Your task to perform on an android device: change alarm snooze length Image 0: 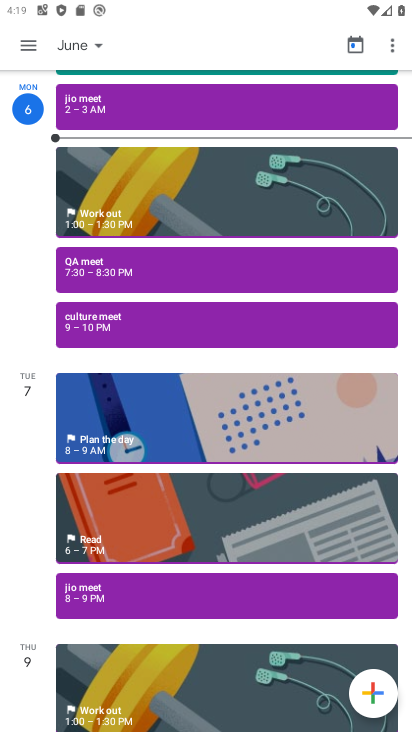
Step 0: press back button
Your task to perform on an android device: change alarm snooze length Image 1: 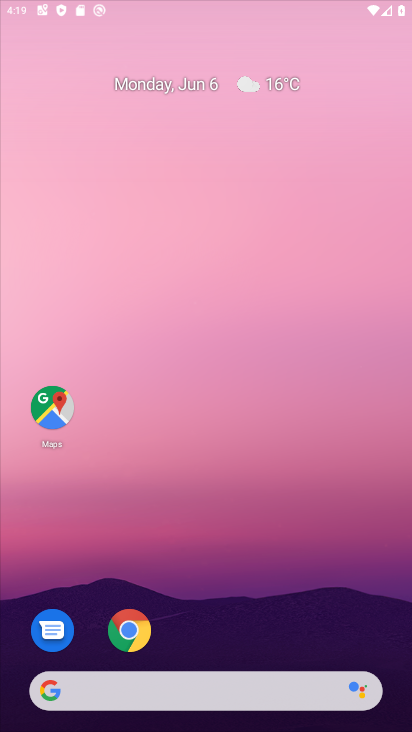
Step 1: drag from (288, 131) to (305, 50)
Your task to perform on an android device: change alarm snooze length Image 2: 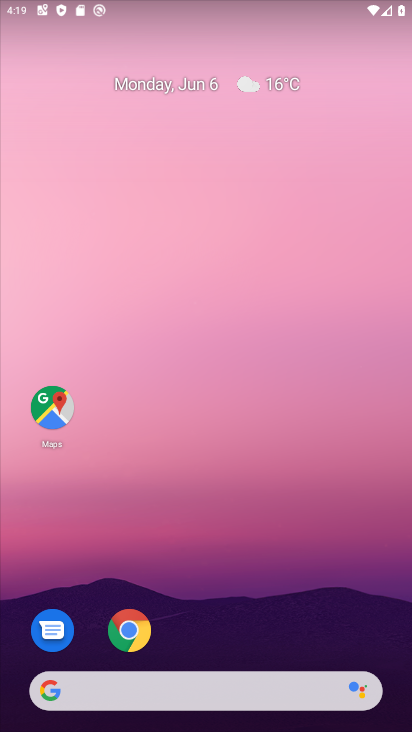
Step 2: drag from (262, 539) to (322, 10)
Your task to perform on an android device: change alarm snooze length Image 3: 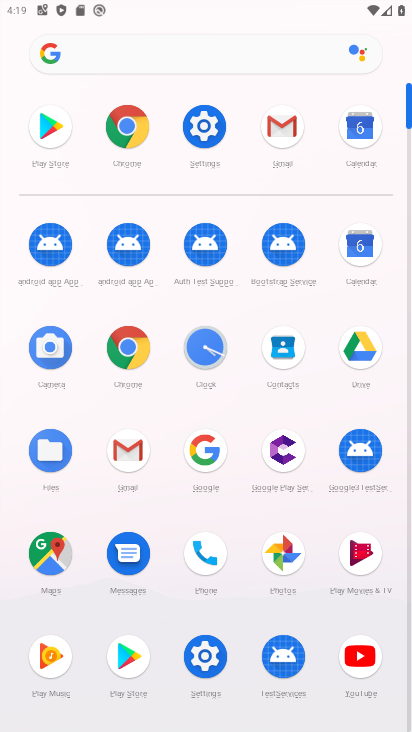
Step 3: click (200, 350)
Your task to perform on an android device: change alarm snooze length Image 4: 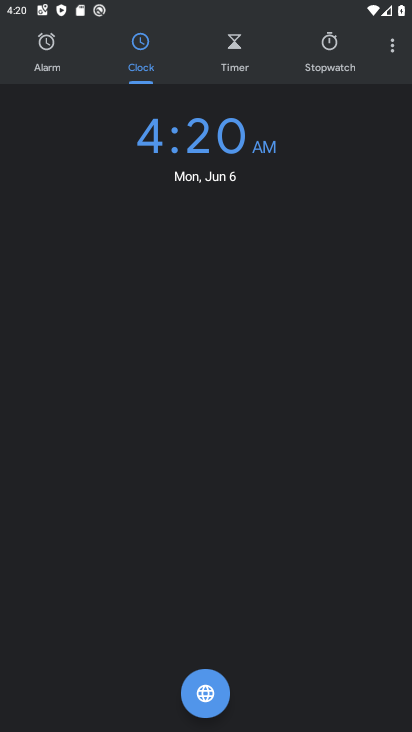
Step 4: click (389, 48)
Your task to perform on an android device: change alarm snooze length Image 5: 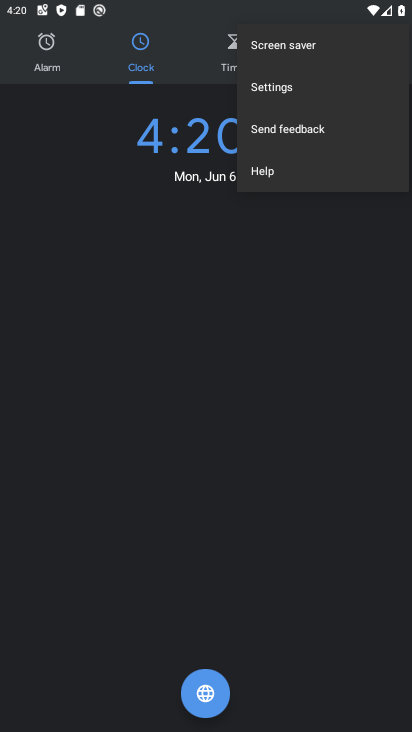
Step 5: click (299, 92)
Your task to perform on an android device: change alarm snooze length Image 6: 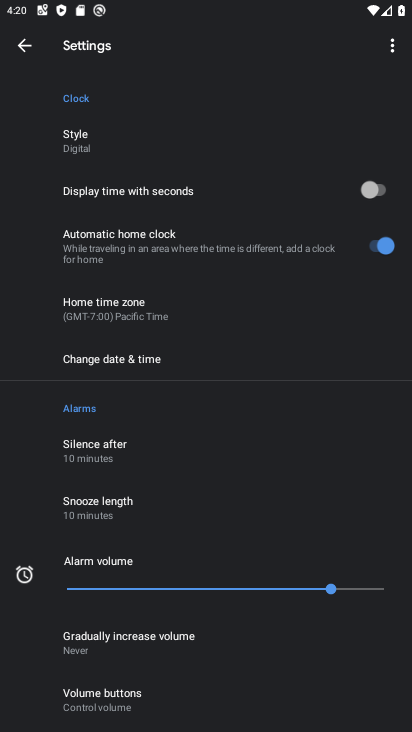
Step 6: click (124, 502)
Your task to perform on an android device: change alarm snooze length Image 7: 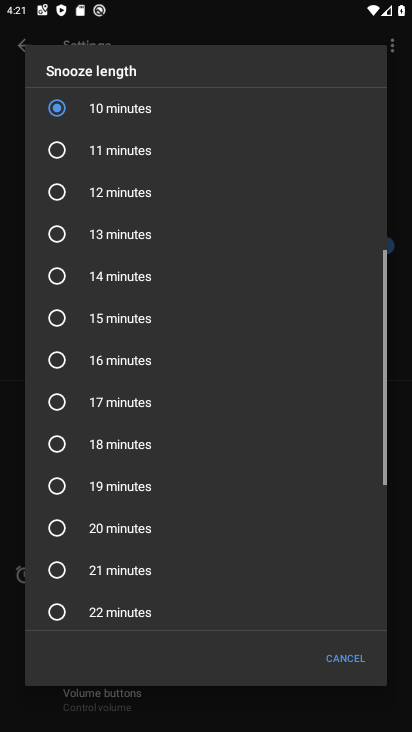
Step 7: click (88, 184)
Your task to perform on an android device: change alarm snooze length Image 8: 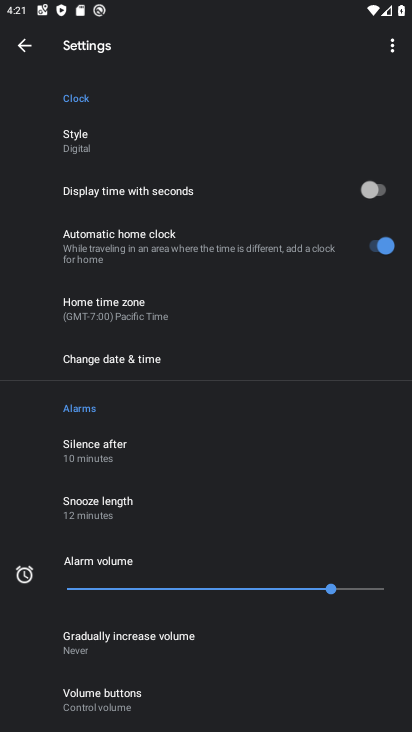
Step 8: task complete